Your task to perform on an android device: set default search engine in the chrome app Image 0: 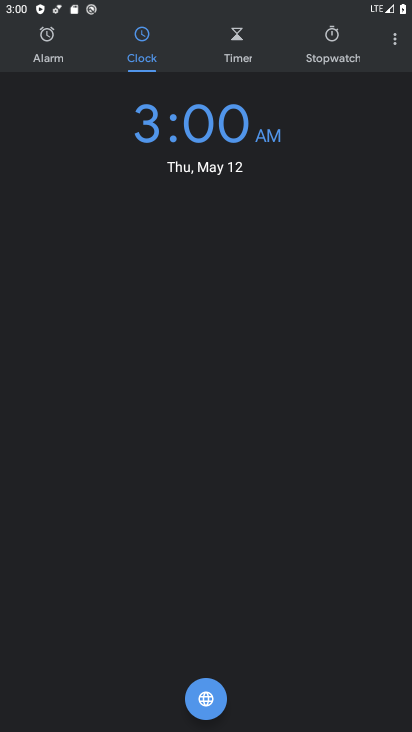
Step 0: press home button
Your task to perform on an android device: set default search engine in the chrome app Image 1: 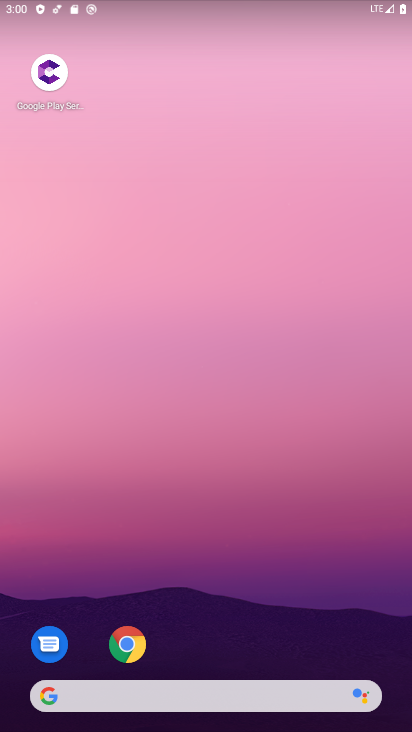
Step 1: drag from (251, 536) to (228, 79)
Your task to perform on an android device: set default search engine in the chrome app Image 2: 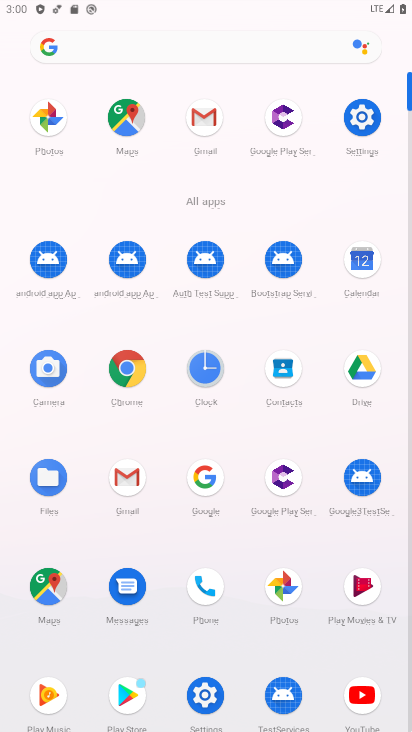
Step 2: click (118, 369)
Your task to perform on an android device: set default search engine in the chrome app Image 3: 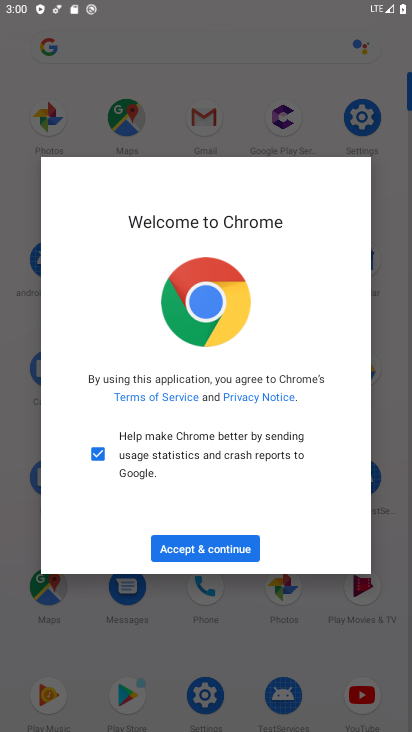
Step 3: click (232, 551)
Your task to perform on an android device: set default search engine in the chrome app Image 4: 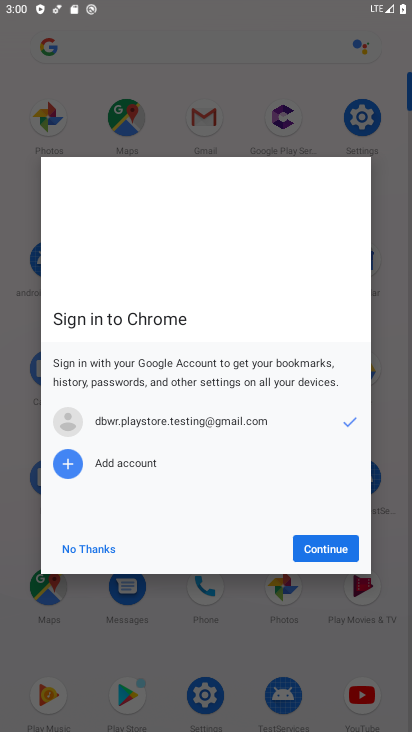
Step 4: click (98, 540)
Your task to perform on an android device: set default search engine in the chrome app Image 5: 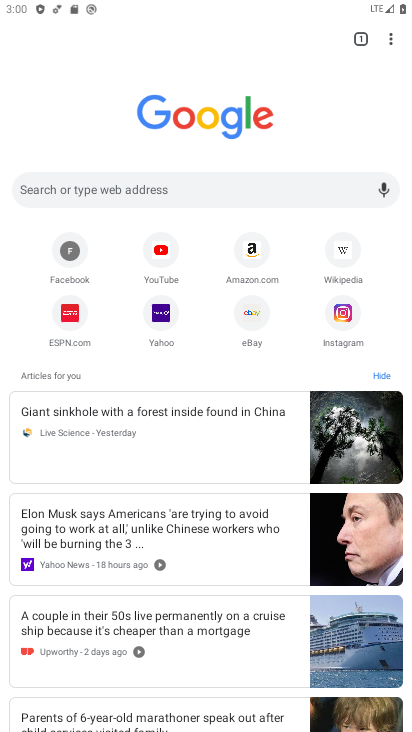
Step 5: drag from (391, 40) to (265, 338)
Your task to perform on an android device: set default search engine in the chrome app Image 6: 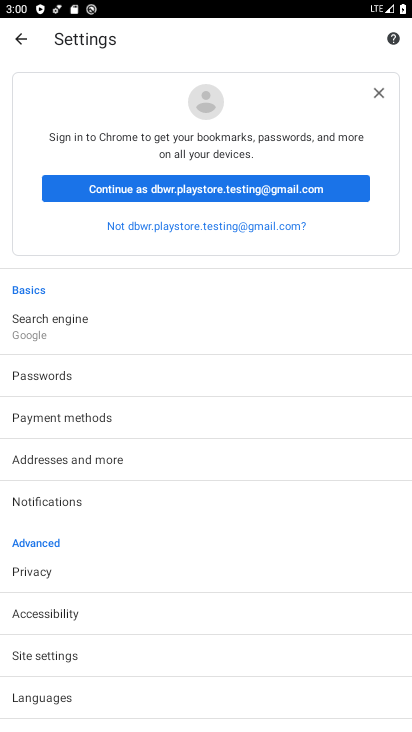
Step 6: click (92, 318)
Your task to perform on an android device: set default search engine in the chrome app Image 7: 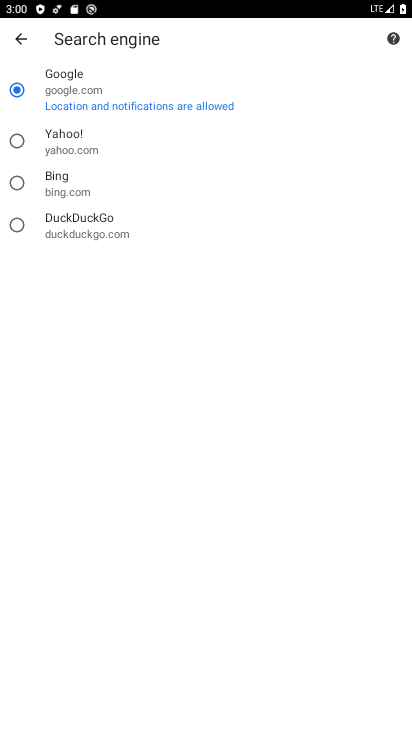
Step 7: task complete